Your task to perform on an android device: Show me recent news Image 0: 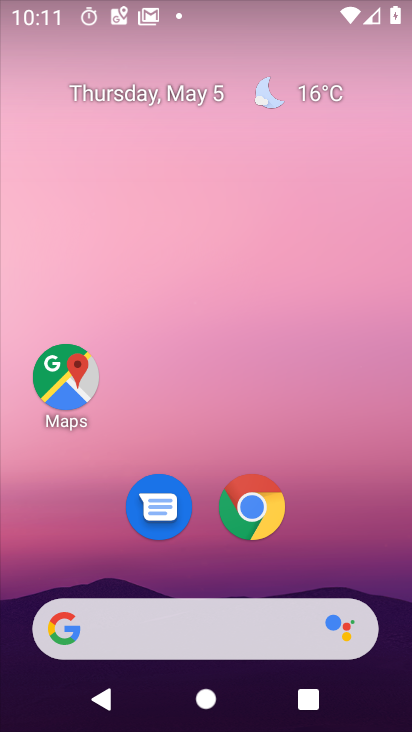
Step 0: click (257, 511)
Your task to perform on an android device: Show me recent news Image 1: 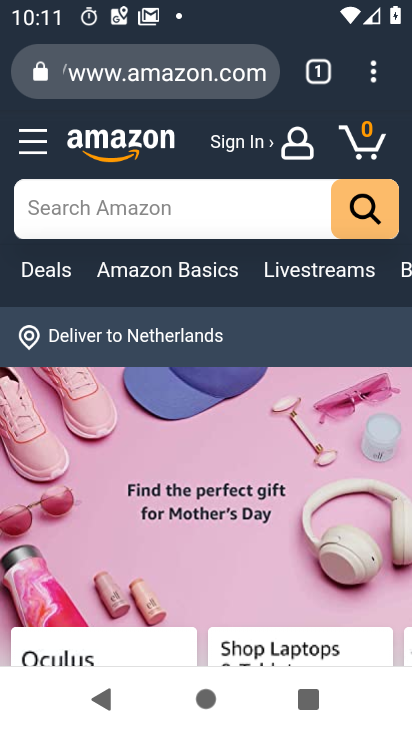
Step 1: click (152, 80)
Your task to perform on an android device: Show me recent news Image 2: 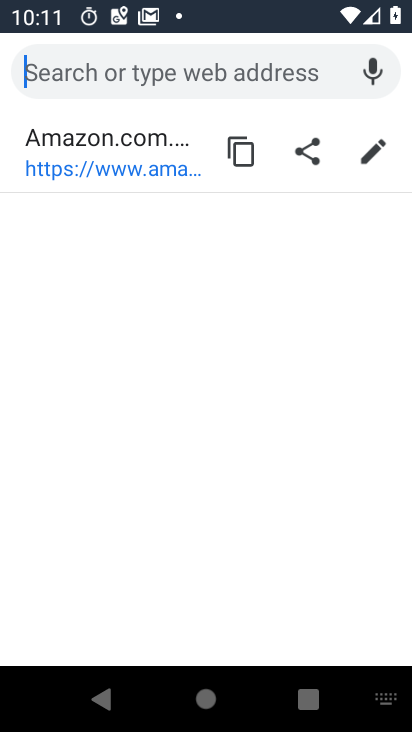
Step 2: type "recent news"
Your task to perform on an android device: Show me recent news Image 3: 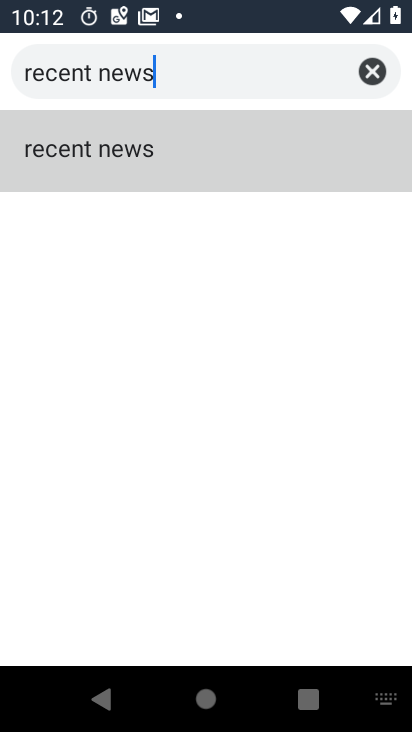
Step 3: click (149, 139)
Your task to perform on an android device: Show me recent news Image 4: 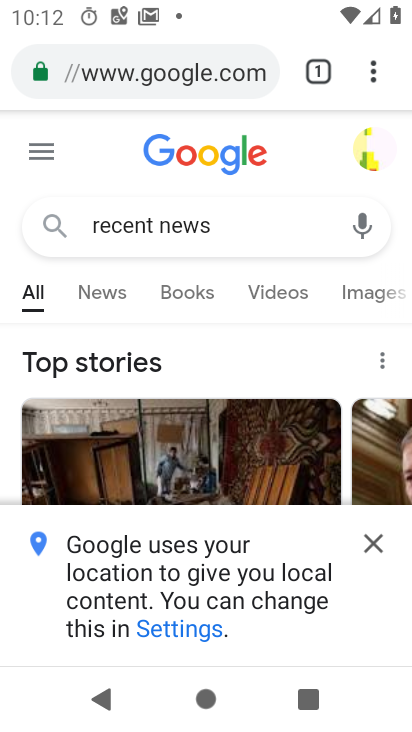
Step 4: task complete